Your task to perform on an android device: Open the phone app and click the voicemail tab. Image 0: 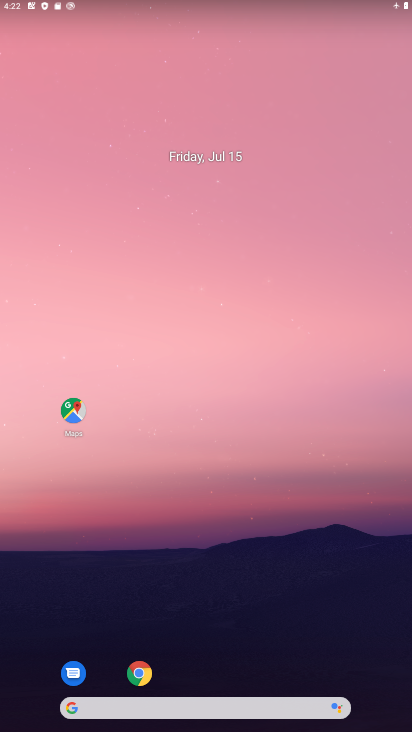
Step 0: drag from (305, 621) to (276, 265)
Your task to perform on an android device: Open the phone app and click the voicemail tab. Image 1: 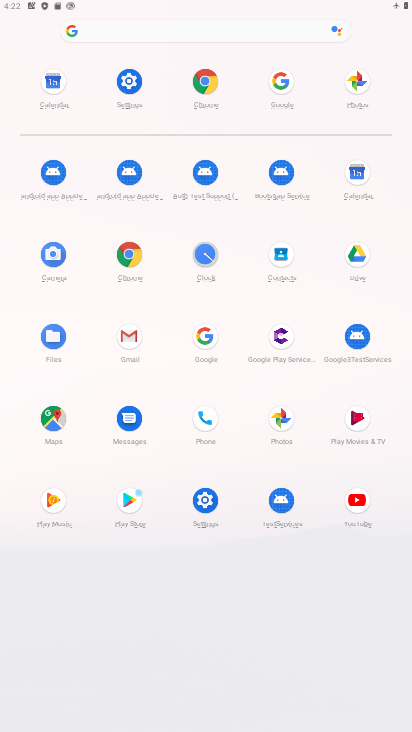
Step 1: click (206, 407)
Your task to perform on an android device: Open the phone app and click the voicemail tab. Image 2: 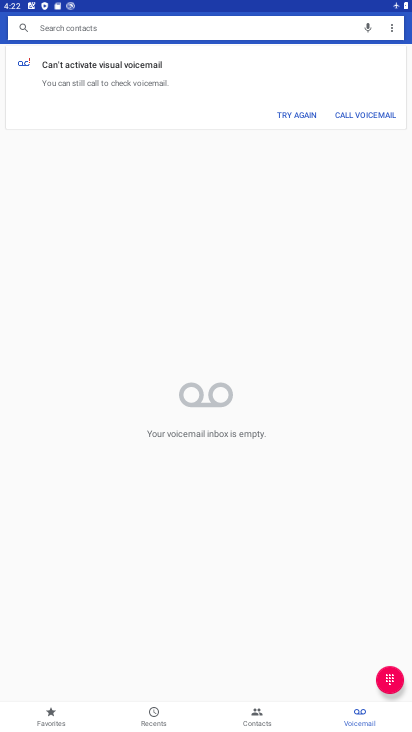
Step 2: click (365, 710)
Your task to perform on an android device: Open the phone app and click the voicemail tab. Image 3: 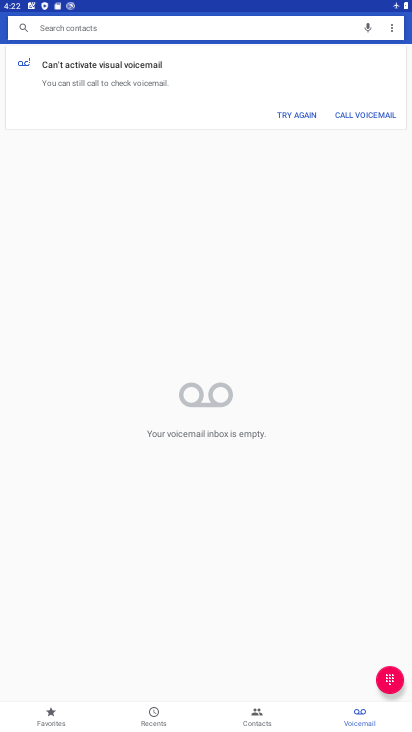
Step 3: task complete